Your task to perform on an android device: change alarm snooze length Image 0: 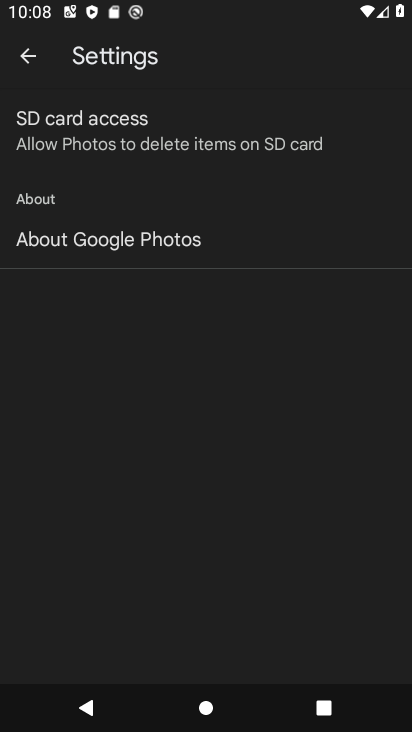
Step 0: press home button
Your task to perform on an android device: change alarm snooze length Image 1: 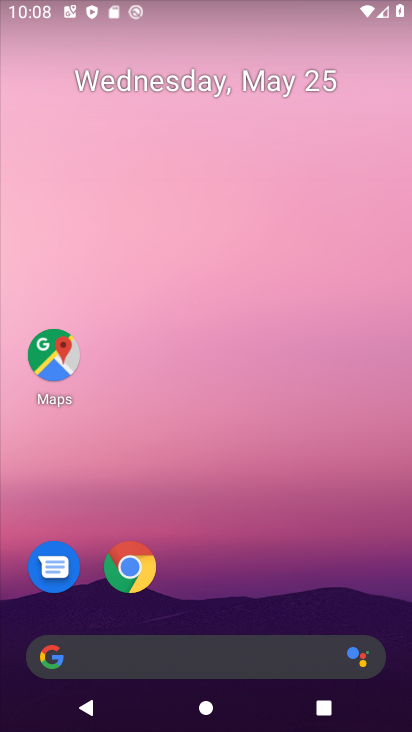
Step 1: drag from (287, 588) to (298, 61)
Your task to perform on an android device: change alarm snooze length Image 2: 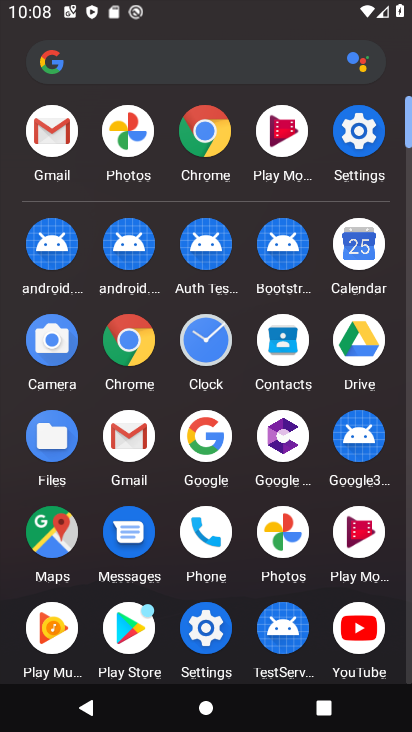
Step 2: click (354, 157)
Your task to perform on an android device: change alarm snooze length Image 3: 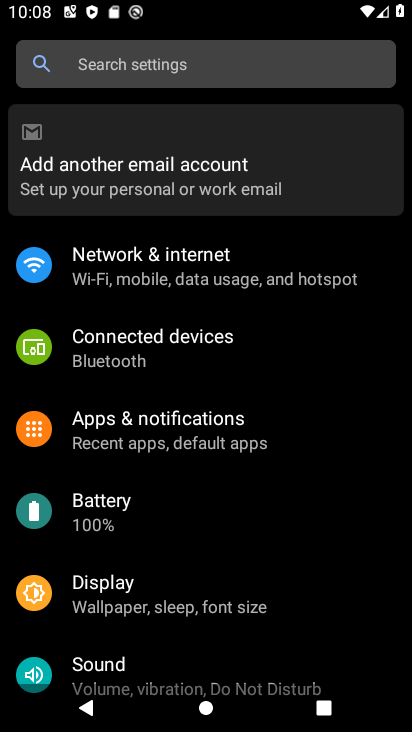
Step 3: drag from (220, 573) to (242, 244)
Your task to perform on an android device: change alarm snooze length Image 4: 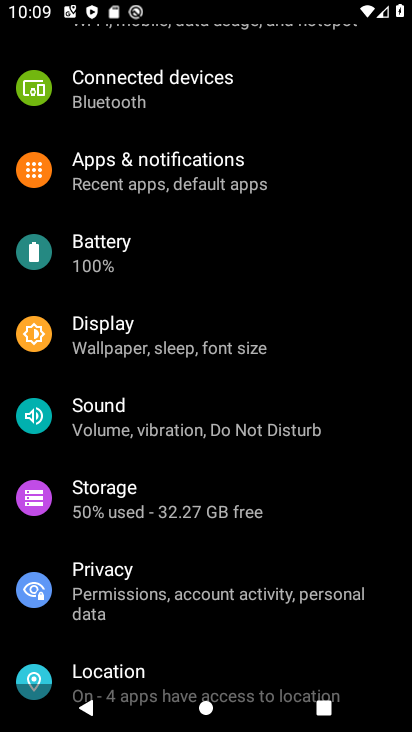
Step 4: drag from (163, 606) to (196, 391)
Your task to perform on an android device: change alarm snooze length Image 5: 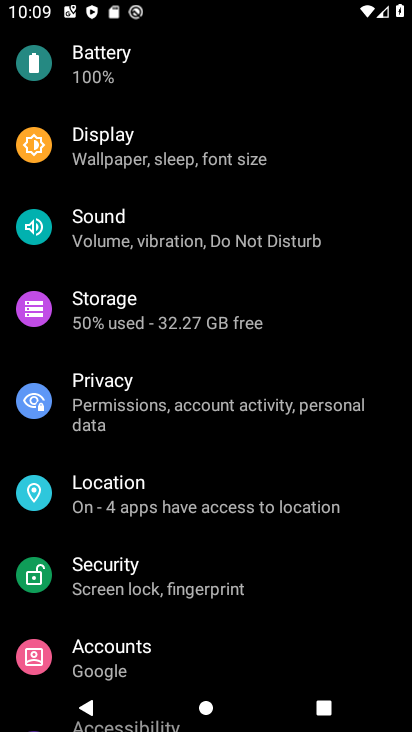
Step 5: drag from (172, 581) to (198, 312)
Your task to perform on an android device: change alarm snooze length Image 6: 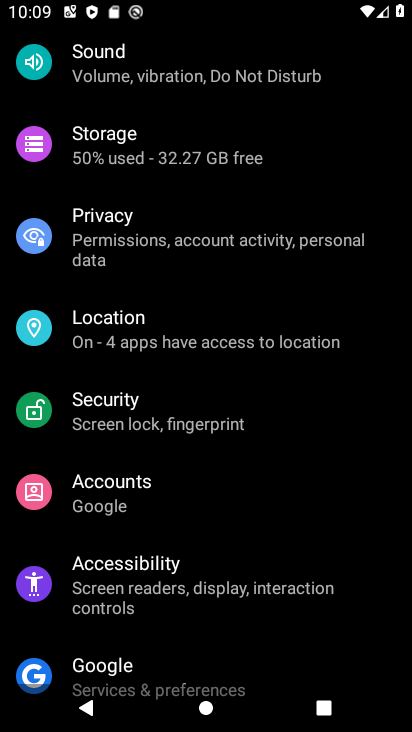
Step 6: press home button
Your task to perform on an android device: change alarm snooze length Image 7: 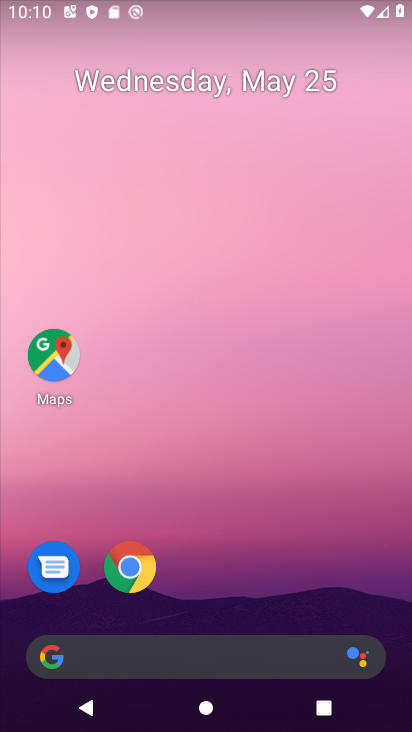
Step 7: drag from (247, 581) to (242, 49)
Your task to perform on an android device: change alarm snooze length Image 8: 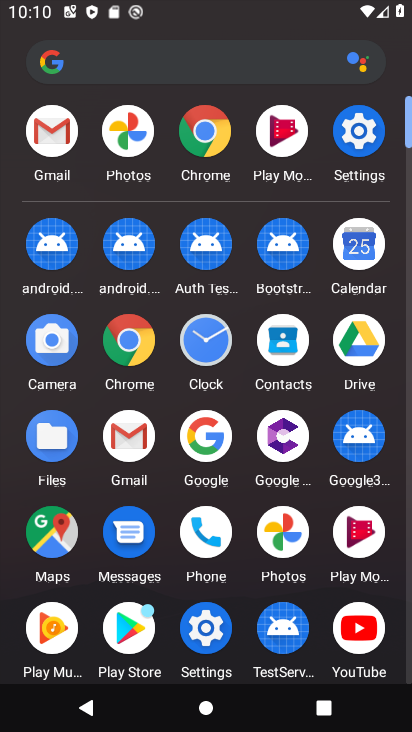
Step 8: drag from (385, 161) to (253, 331)
Your task to perform on an android device: change alarm snooze length Image 9: 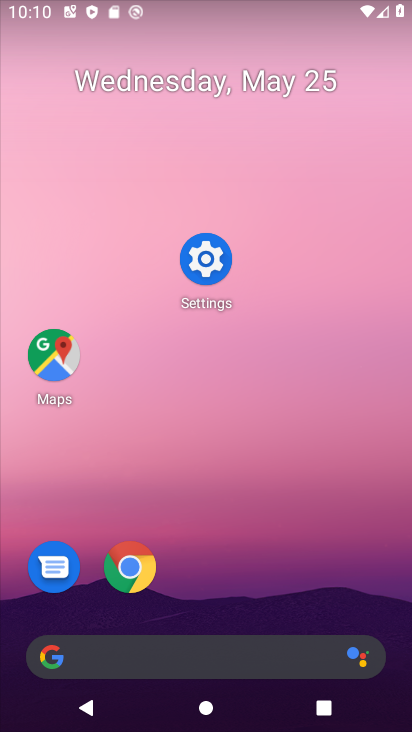
Step 9: drag from (309, 526) to (319, 70)
Your task to perform on an android device: change alarm snooze length Image 10: 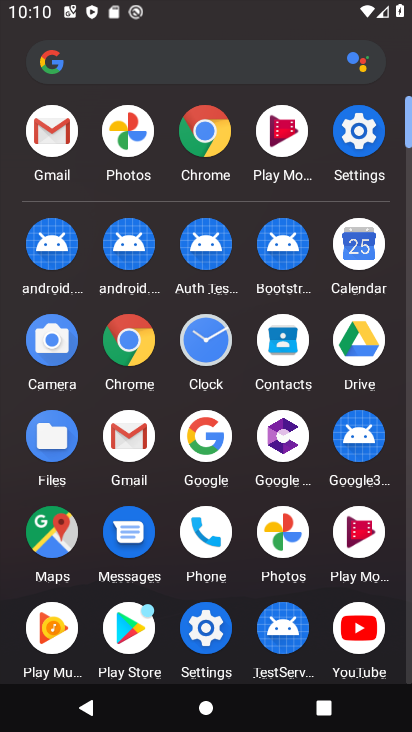
Step 10: click (209, 347)
Your task to perform on an android device: change alarm snooze length Image 11: 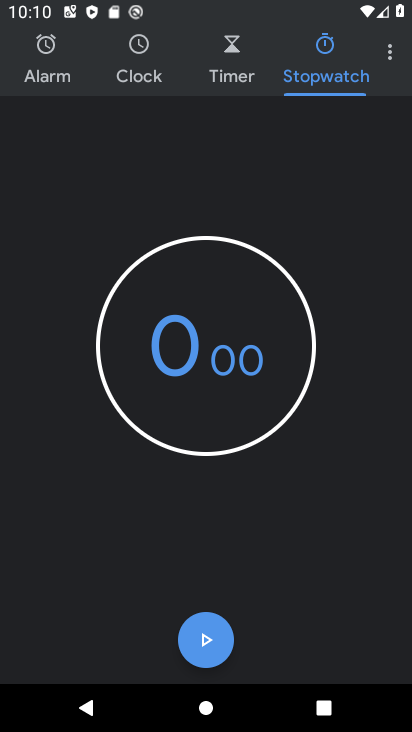
Step 11: click (385, 55)
Your task to perform on an android device: change alarm snooze length Image 12: 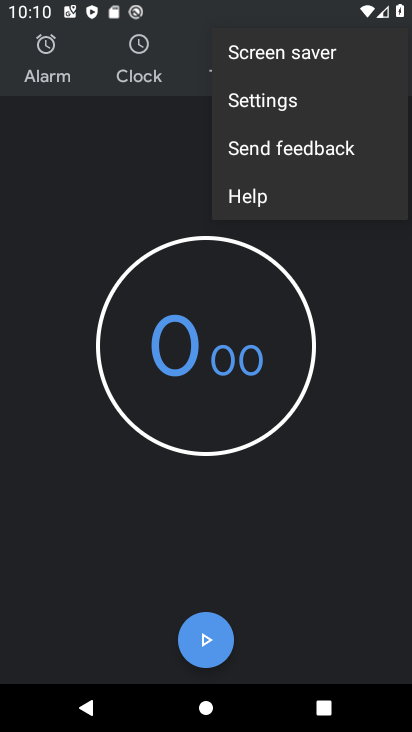
Step 12: click (283, 105)
Your task to perform on an android device: change alarm snooze length Image 13: 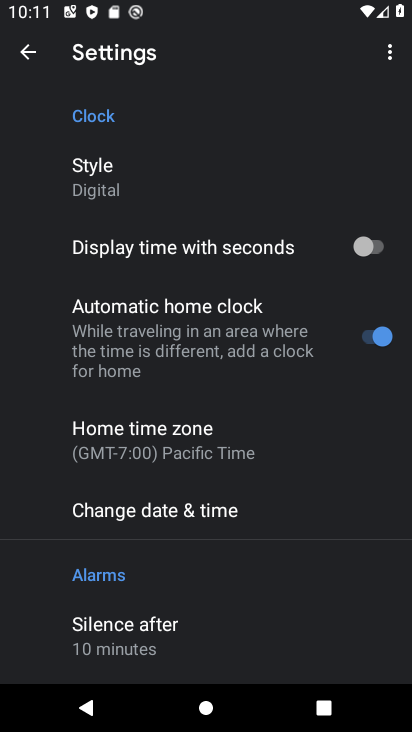
Step 13: drag from (179, 598) to (208, 394)
Your task to perform on an android device: change alarm snooze length Image 14: 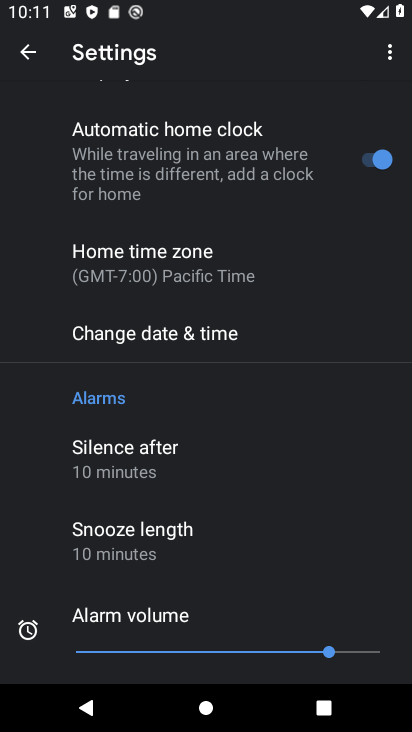
Step 14: click (208, 542)
Your task to perform on an android device: change alarm snooze length Image 15: 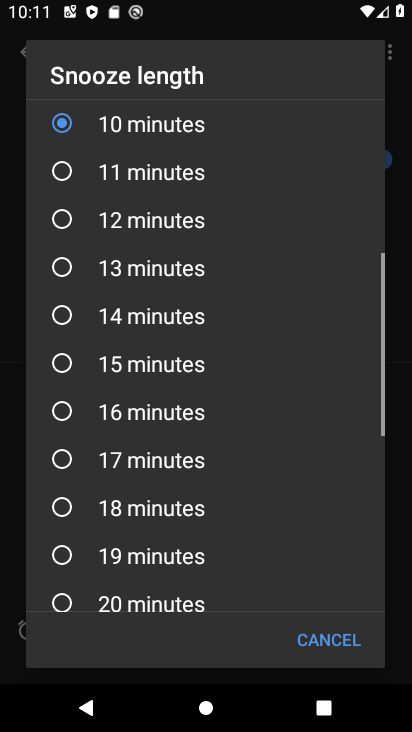
Step 15: click (167, 459)
Your task to perform on an android device: change alarm snooze length Image 16: 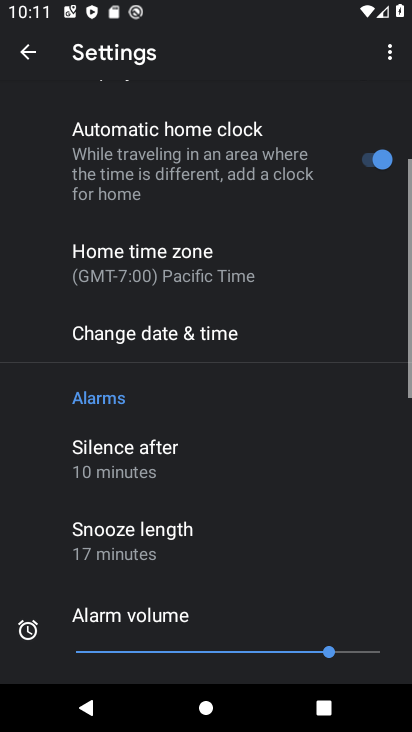
Step 16: task complete